Your task to perform on an android device: turn on the 24-hour format for clock Image 0: 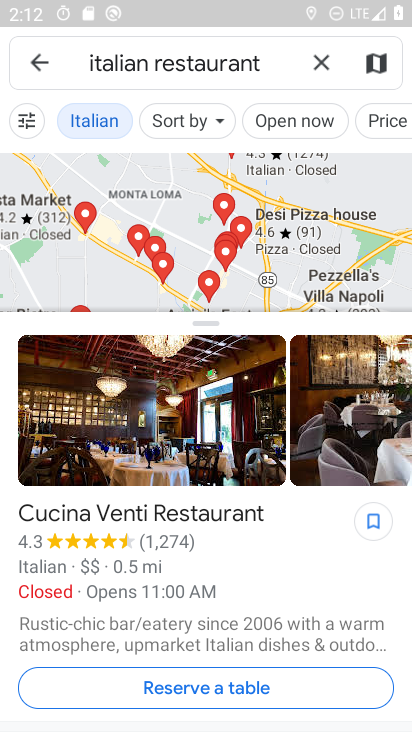
Step 0: press home button
Your task to perform on an android device: turn on the 24-hour format for clock Image 1: 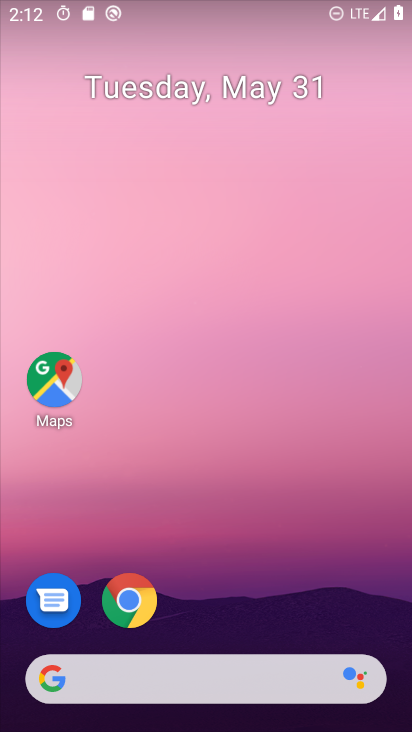
Step 1: drag from (213, 723) to (234, 108)
Your task to perform on an android device: turn on the 24-hour format for clock Image 2: 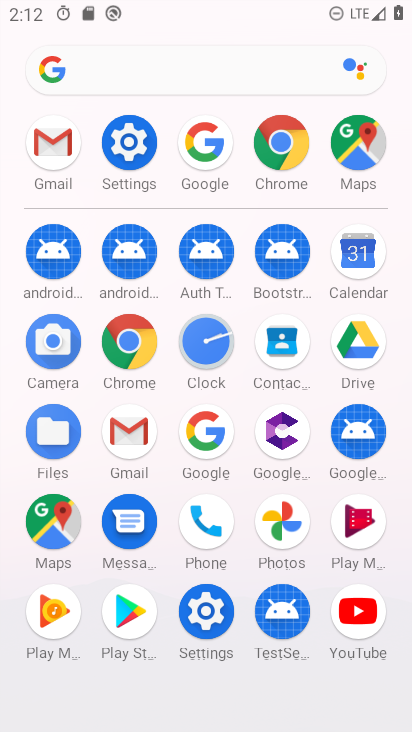
Step 2: click (214, 352)
Your task to perform on an android device: turn on the 24-hour format for clock Image 3: 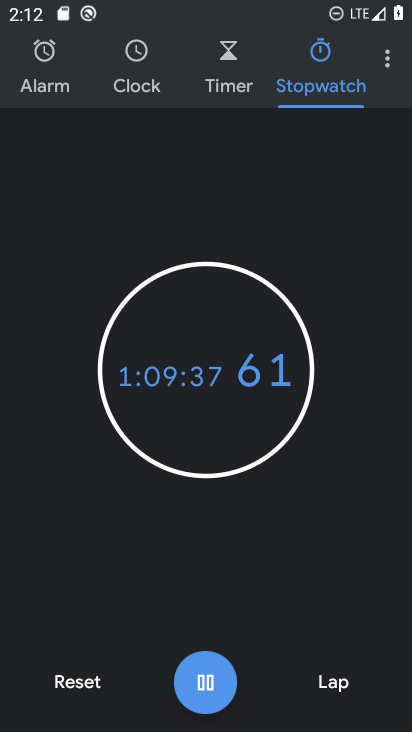
Step 3: click (388, 61)
Your task to perform on an android device: turn on the 24-hour format for clock Image 4: 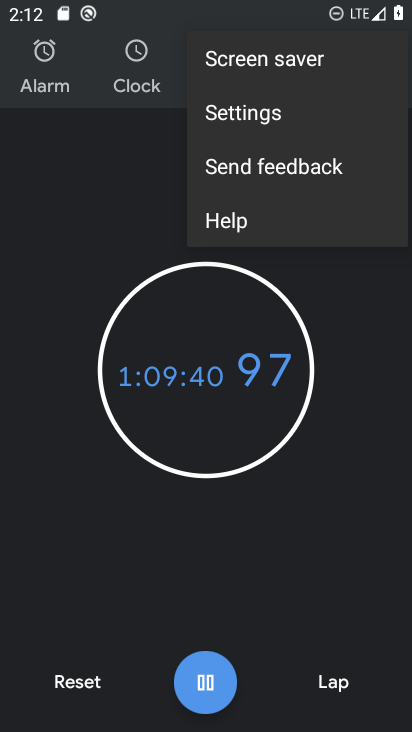
Step 4: click (258, 116)
Your task to perform on an android device: turn on the 24-hour format for clock Image 5: 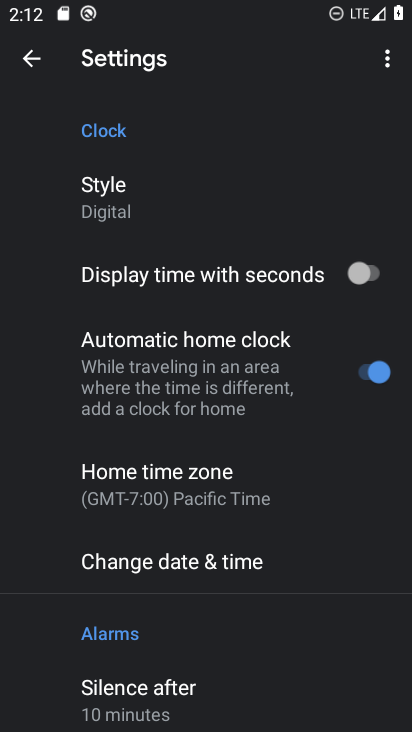
Step 5: click (163, 557)
Your task to perform on an android device: turn on the 24-hour format for clock Image 6: 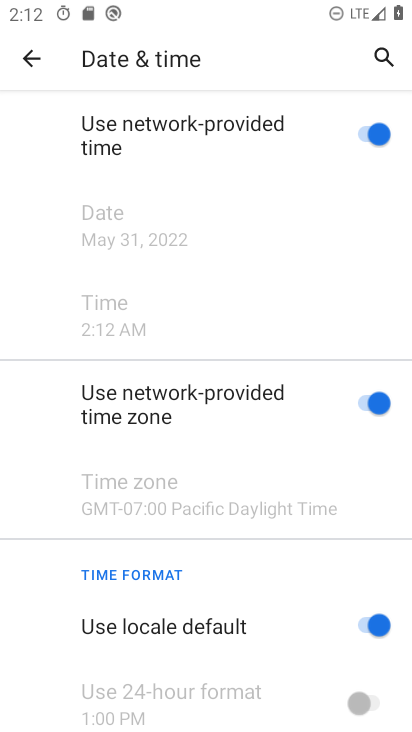
Step 6: click (371, 622)
Your task to perform on an android device: turn on the 24-hour format for clock Image 7: 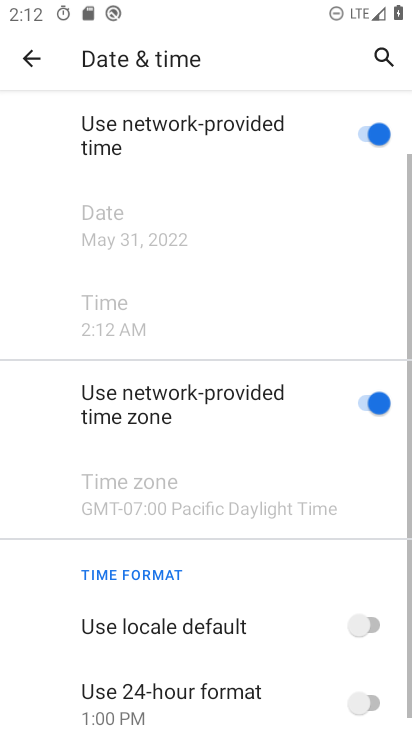
Step 7: click (371, 699)
Your task to perform on an android device: turn on the 24-hour format for clock Image 8: 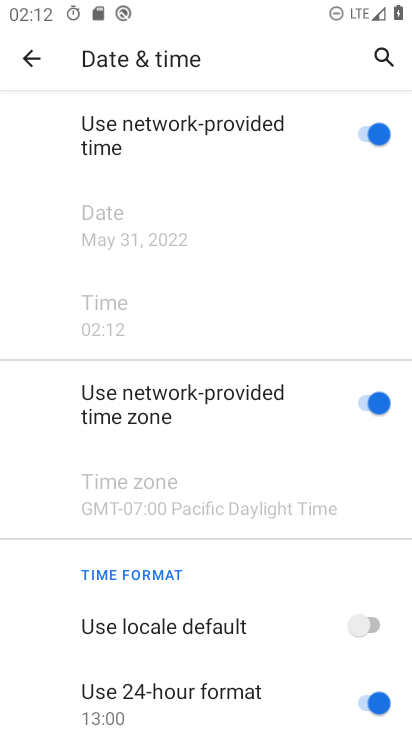
Step 8: task complete